Your task to perform on an android device: Open the Play Movies app and select the watchlist tab. Image 0: 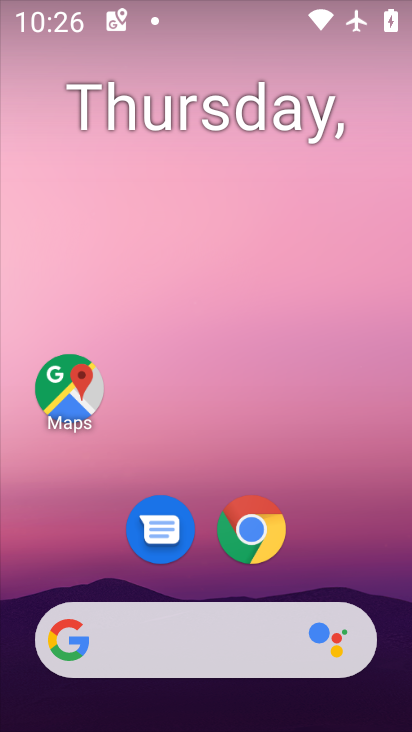
Step 0: drag from (202, 575) to (318, 54)
Your task to perform on an android device: Open the Play Movies app and select the watchlist tab. Image 1: 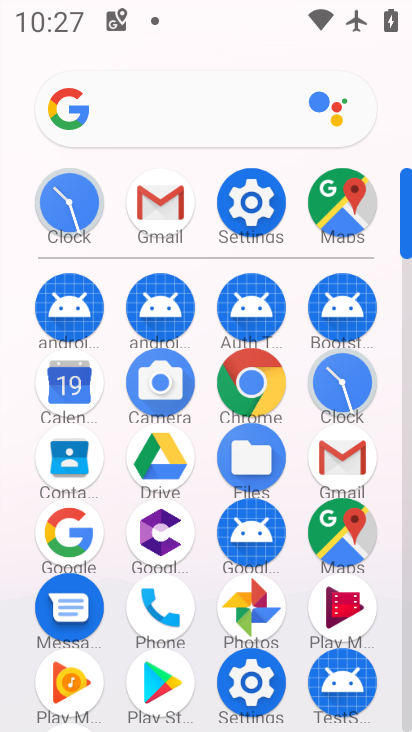
Step 1: click (334, 610)
Your task to perform on an android device: Open the Play Movies app and select the watchlist tab. Image 2: 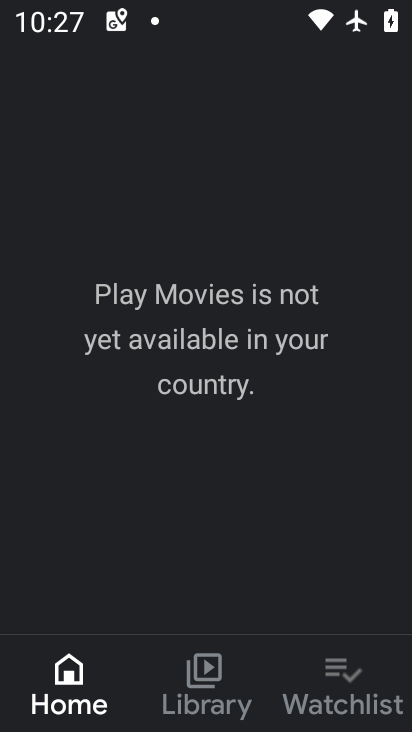
Step 2: click (360, 667)
Your task to perform on an android device: Open the Play Movies app and select the watchlist tab. Image 3: 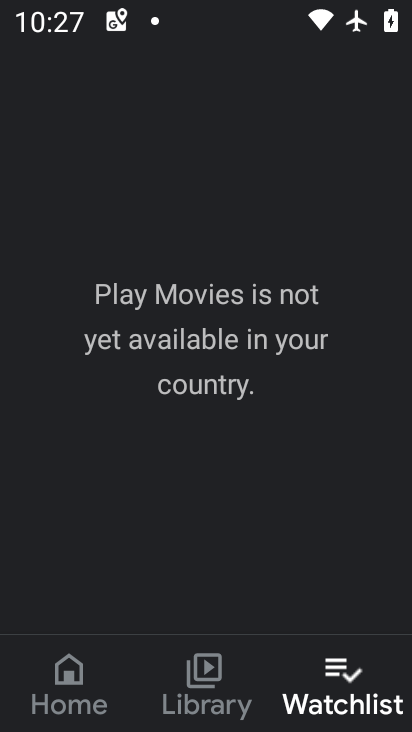
Step 3: task complete